Your task to perform on an android device: Open display settings Image 0: 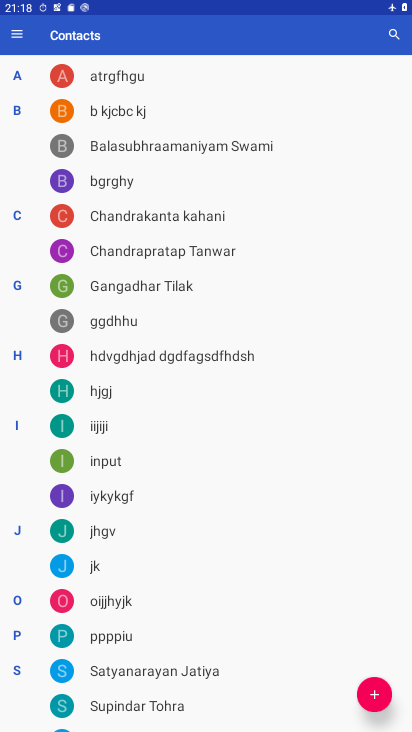
Step 0: press home button
Your task to perform on an android device: Open display settings Image 1: 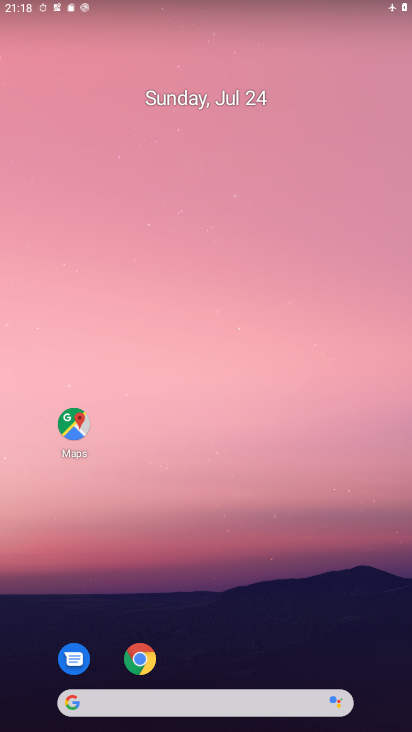
Step 1: drag from (206, 728) to (207, 211)
Your task to perform on an android device: Open display settings Image 2: 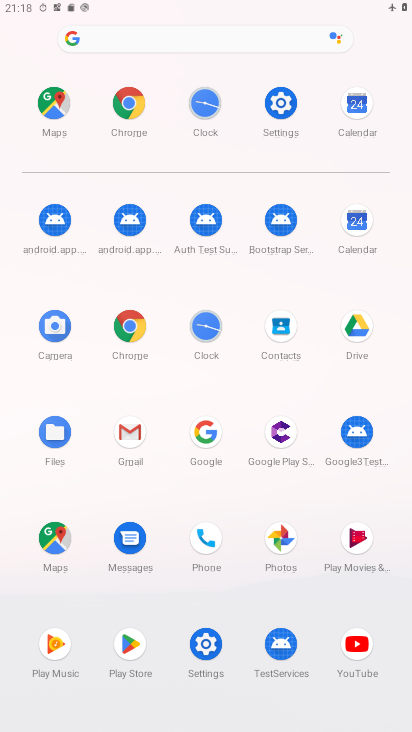
Step 2: click (286, 109)
Your task to perform on an android device: Open display settings Image 3: 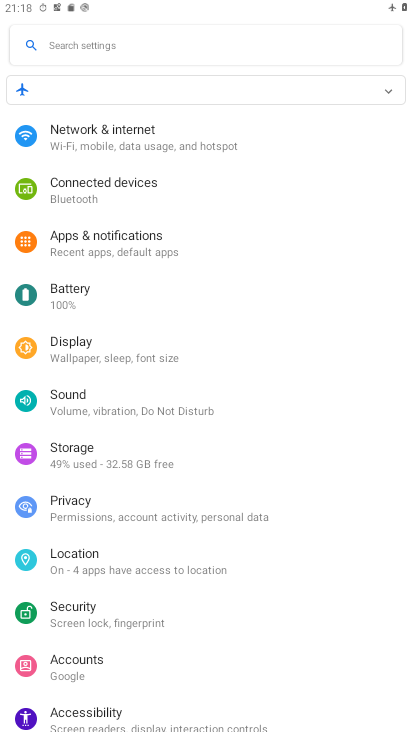
Step 3: click (72, 350)
Your task to perform on an android device: Open display settings Image 4: 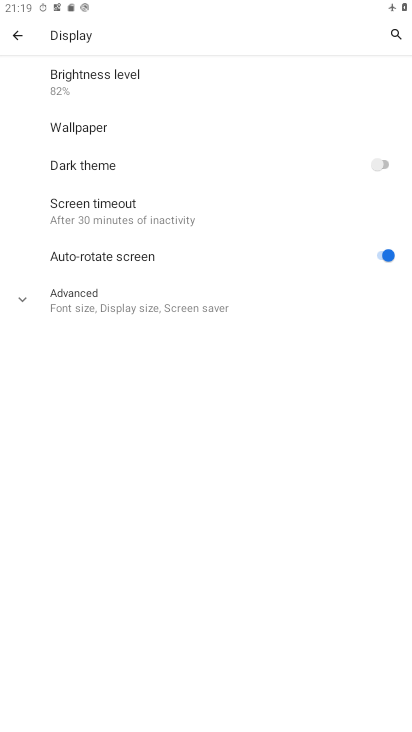
Step 4: task complete